Your task to perform on an android device: create a new album in the google photos Image 0: 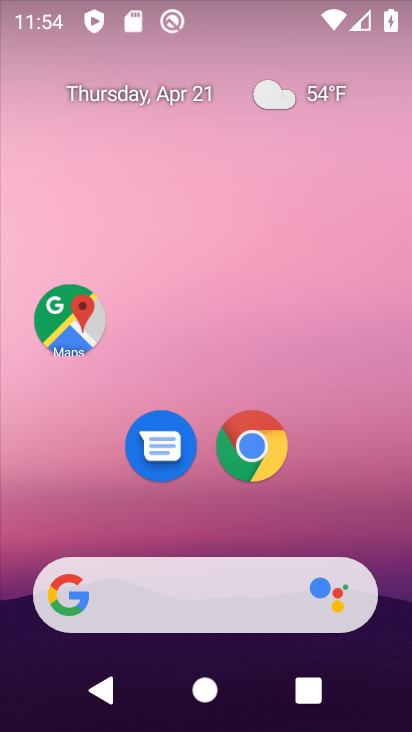
Step 0: drag from (403, 525) to (259, 143)
Your task to perform on an android device: create a new album in the google photos Image 1: 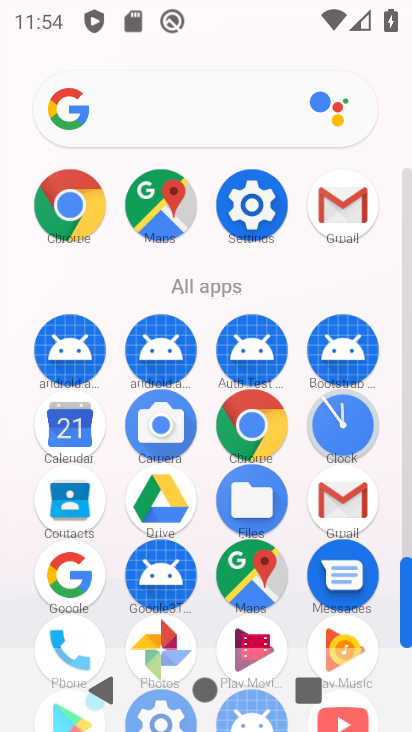
Step 1: click (176, 638)
Your task to perform on an android device: create a new album in the google photos Image 2: 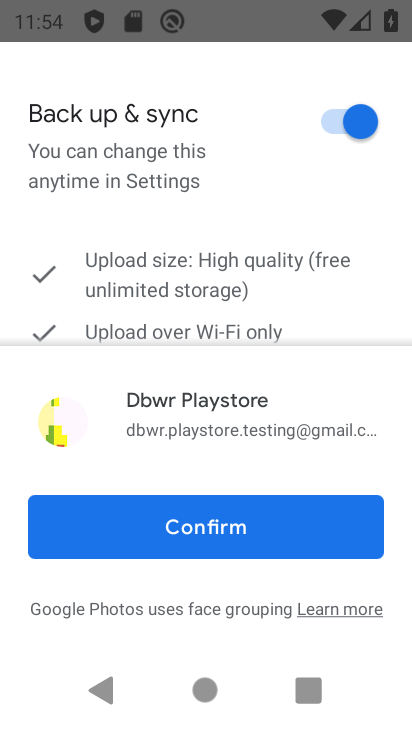
Step 2: click (296, 523)
Your task to perform on an android device: create a new album in the google photos Image 3: 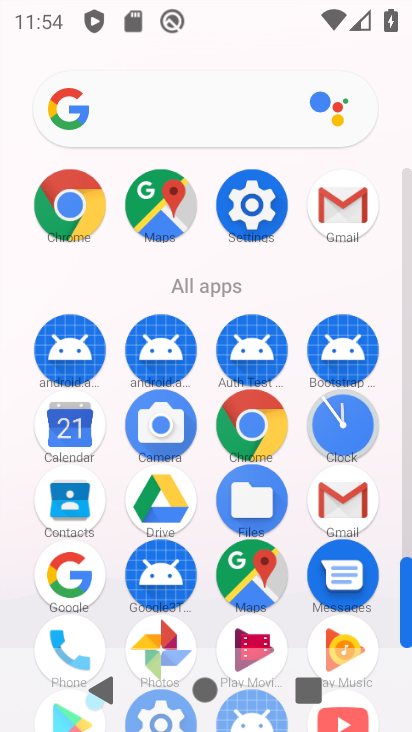
Step 3: click (171, 631)
Your task to perform on an android device: create a new album in the google photos Image 4: 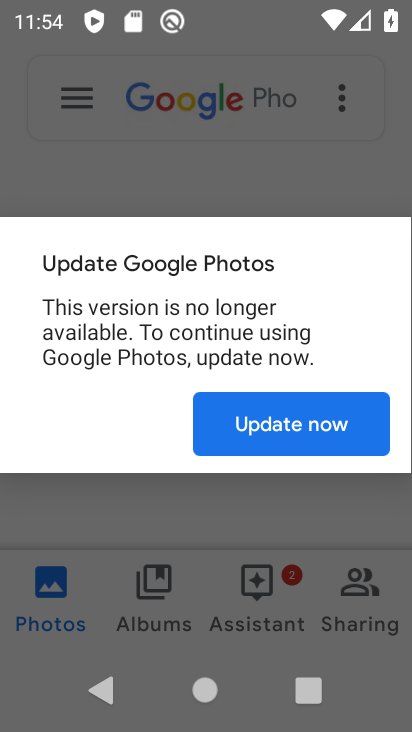
Step 4: click (322, 428)
Your task to perform on an android device: create a new album in the google photos Image 5: 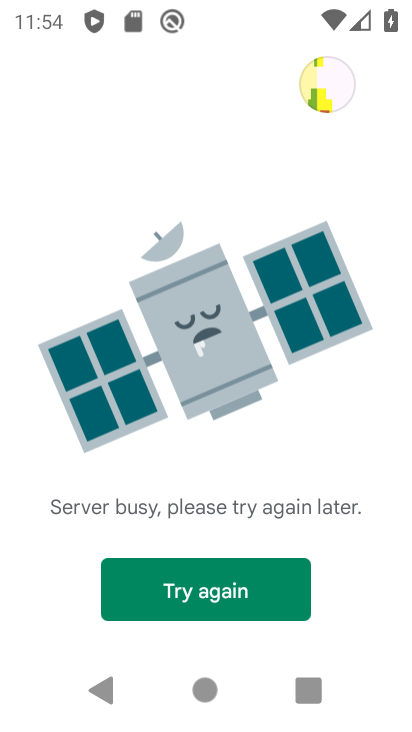
Step 5: task complete